Your task to perform on an android device: add a contact Image 0: 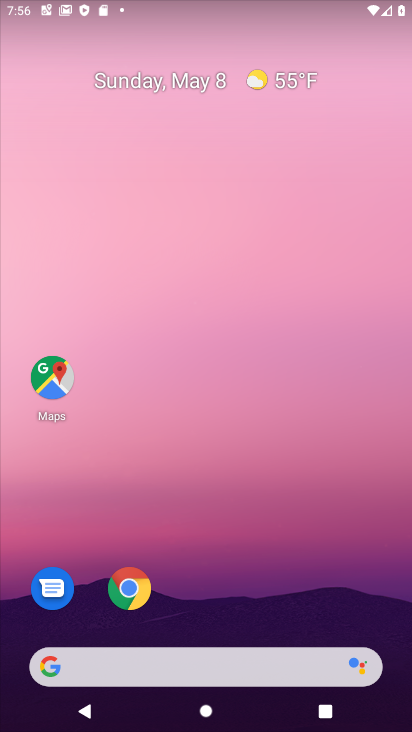
Step 0: drag from (338, 610) to (201, 41)
Your task to perform on an android device: add a contact Image 1: 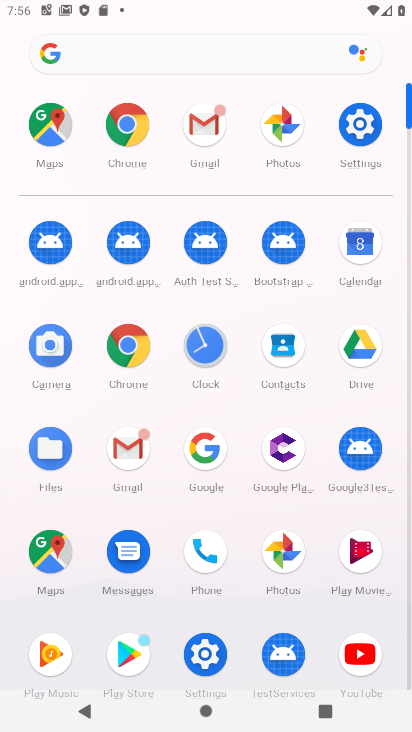
Step 1: click (282, 370)
Your task to perform on an android device: add a contact Image 2: 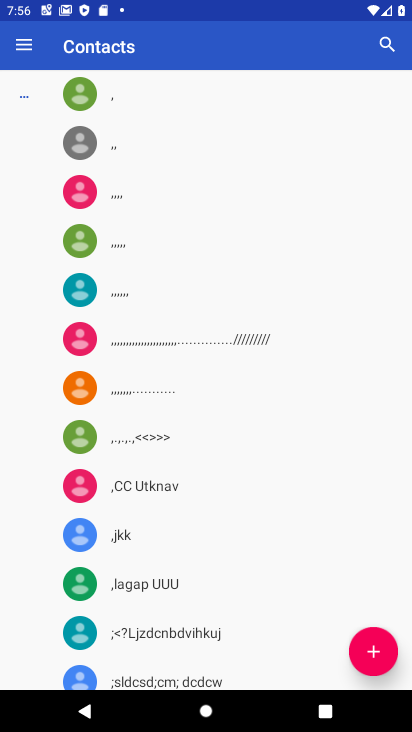
Step 2: click (365, 642)
Your task to perform on an android device: add a contact Image 3: 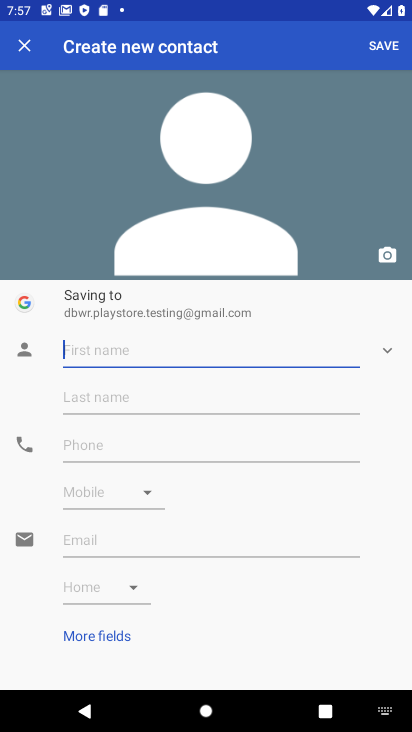
Step 3: type "power"
Your task to perform on an android device: add a contact Image 4: 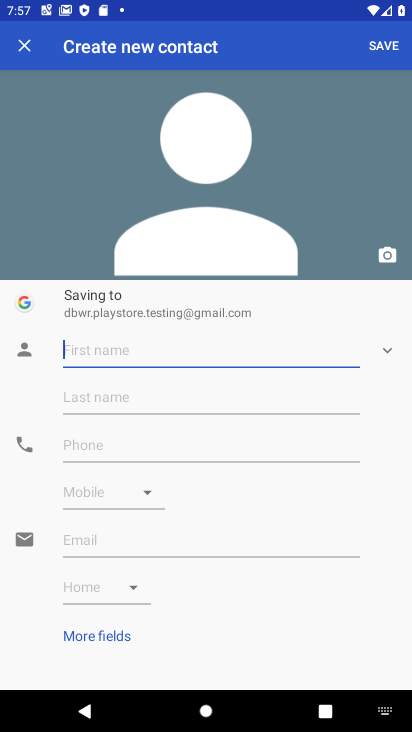
Step 4: click (373, 46)
Your task to perform on an android device: add a contact Image 5: 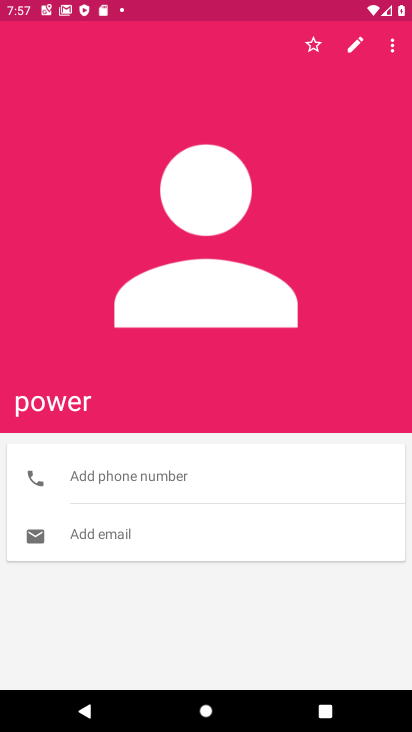
Step 5: task complete